Your task to perform on an android device: delete browsing data in the chrome app Image 0: 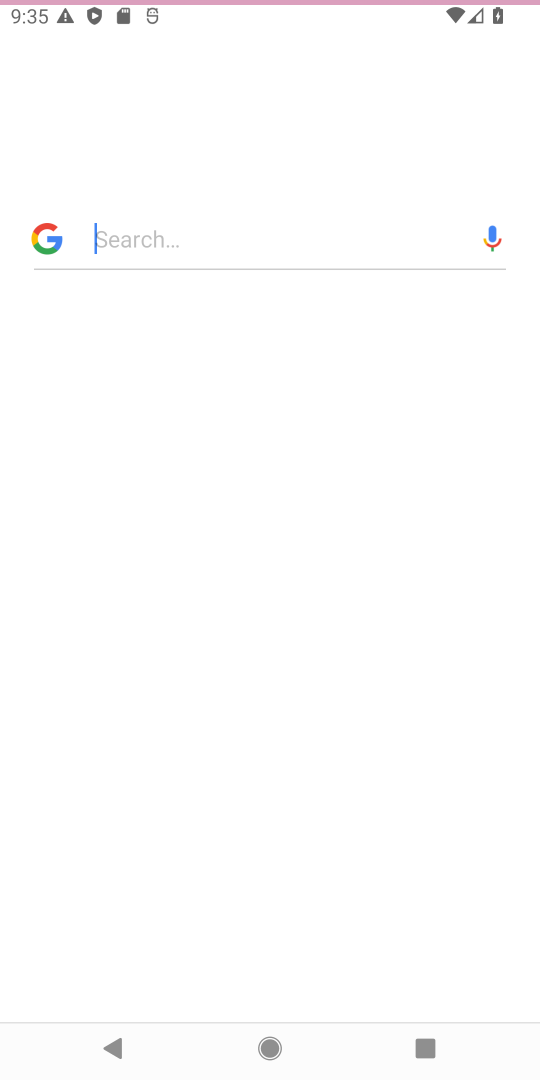
Step 0: press home button
Your task to perform on an android device: delete browsing data in the chrome app Image 1: 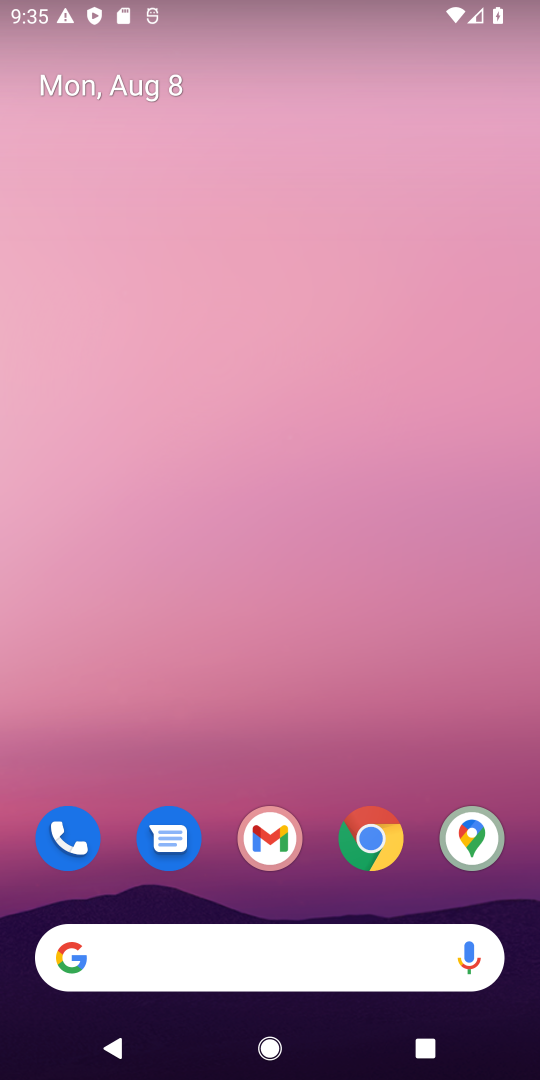
Step 1: drag from (322, 890) to (319, 215)
Your task to perform on an android device: delete browsing data in the chrome app Image 2: 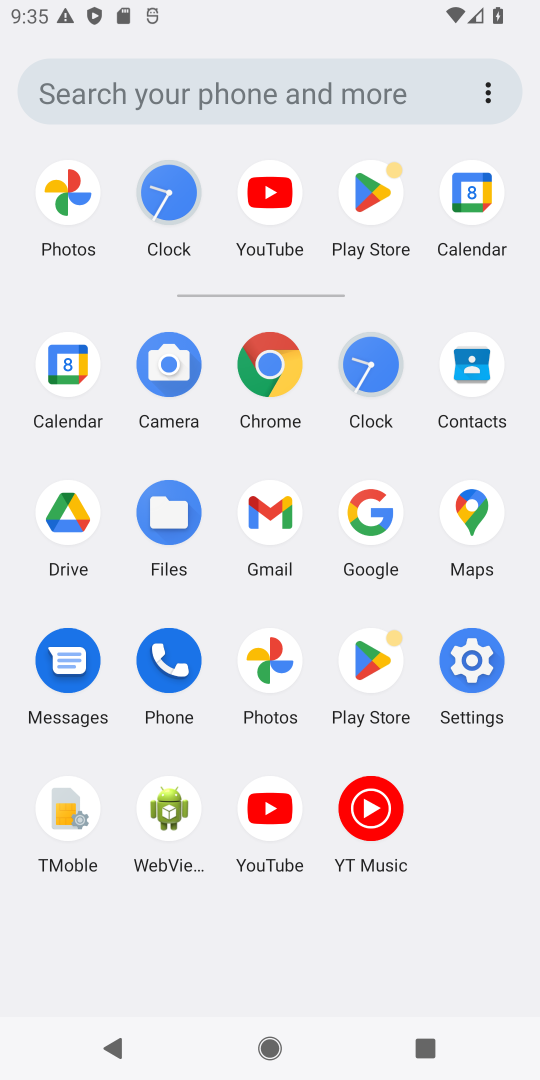
Step 2: click (272, 371)
Your task to perform on an android device: delete browsing data in the chrome app Image 3: 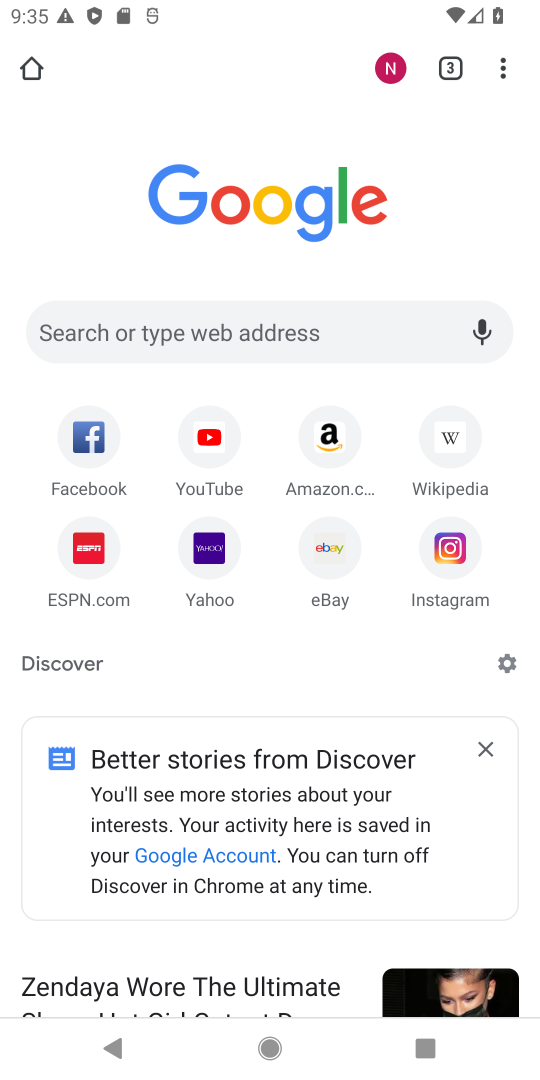
Step 3: drag from (509, 69) to (313, 704)
Your task to perform on an android device: delete browsing data in the chrome app Image 4: 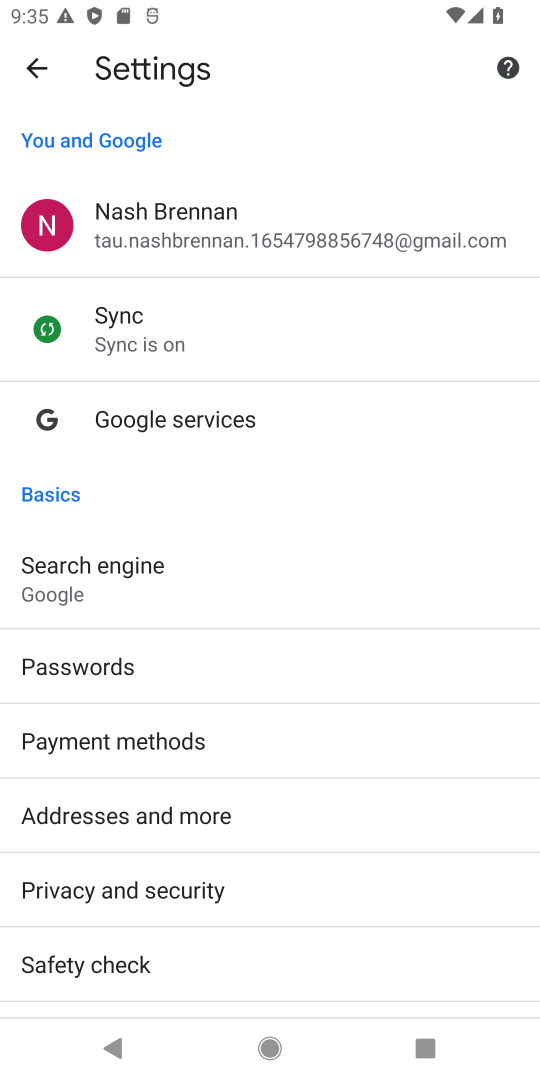
Step 4: drag from (333, 922) to (353, 375)
Your task to perform on an android device: delete browsing data in the chrome app Image 5: 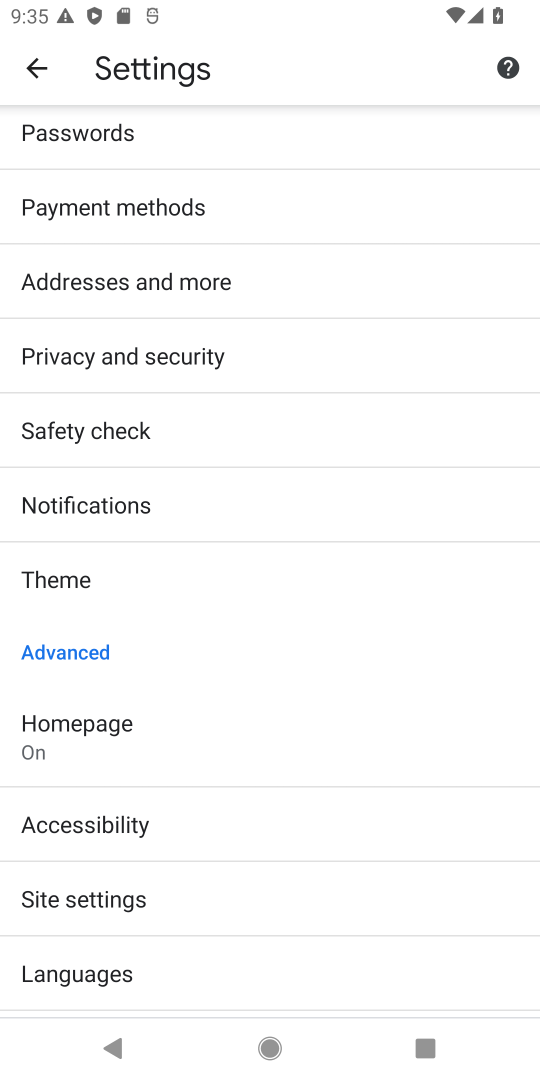
Step 5: drag from (363, 259) to (367, 422)
Your task to perform on an android device: delete browsing data in the chrome app Image 6: 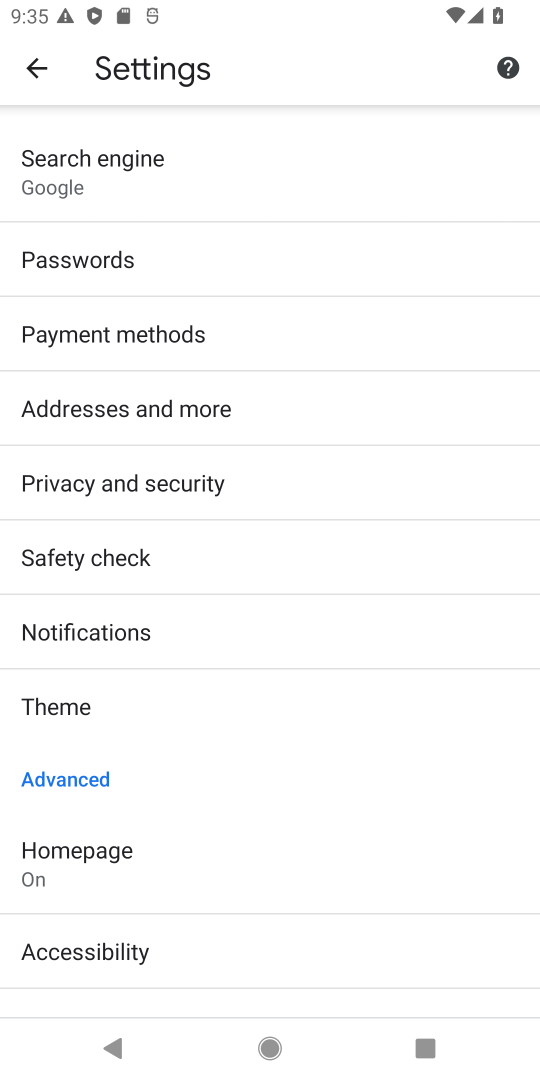
Step 6: click (141, 497)
Your task to perform on an android device: delete browsing data in the chrome app Image 7: 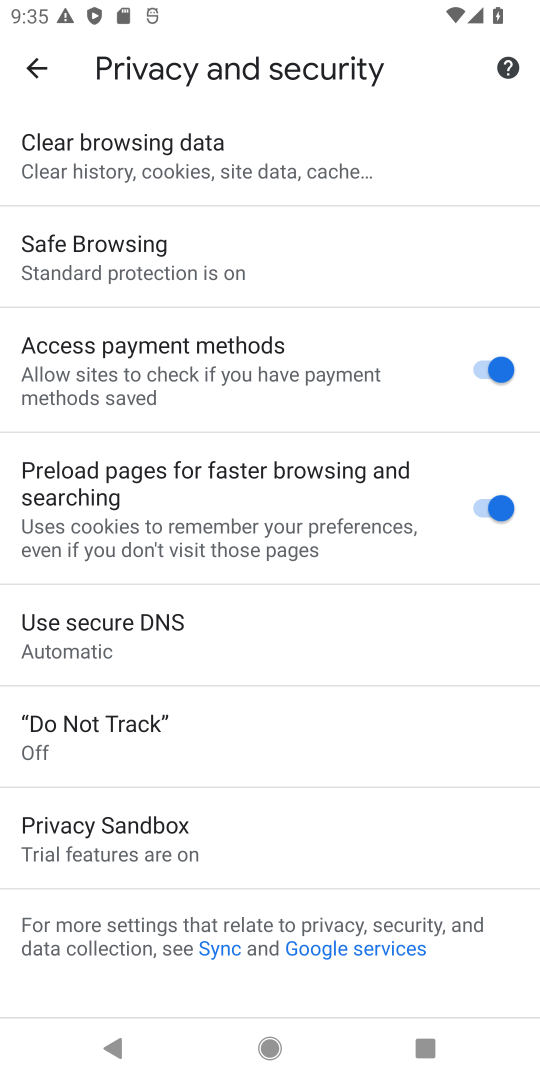
Step 7: drag from (416, 832) to (486, 67)
Your task to perform on an android device: delete browsing data in the chrome app Image 8: 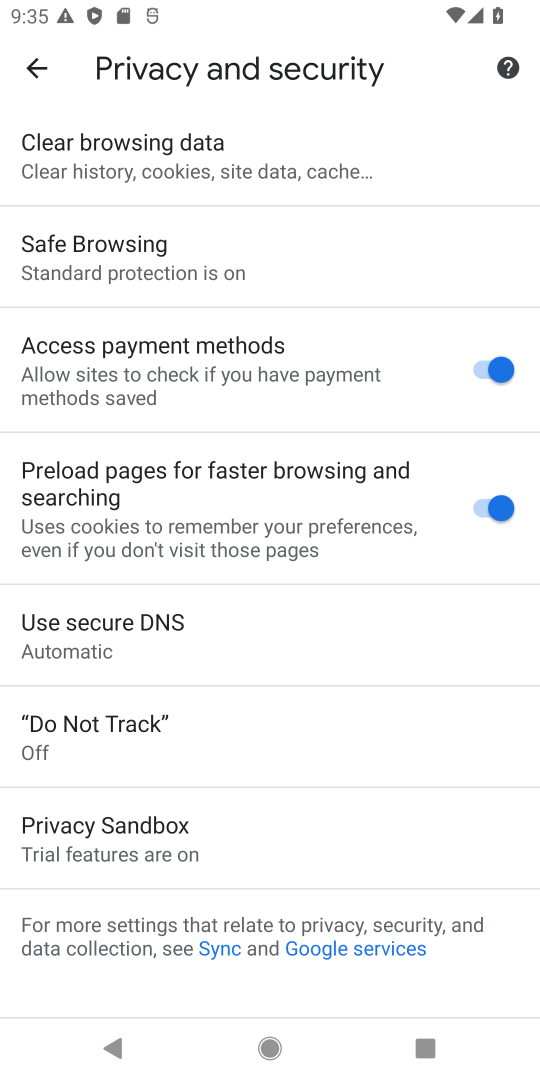
Step 8: click (99, 156)
Your task to perform on an android device: delete browsing data in the chrome app Image 9: 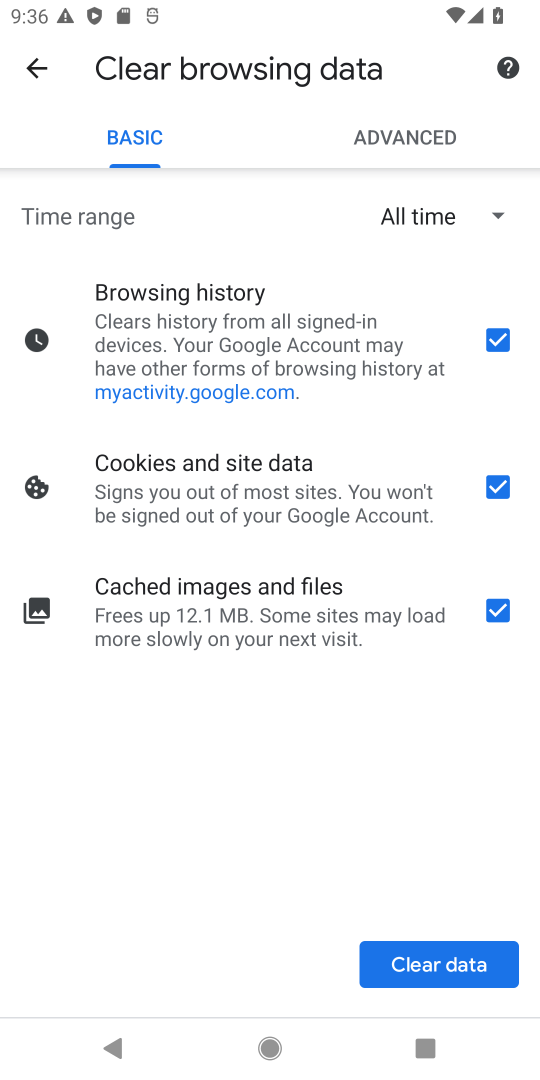
Step 9: click (428, 968)
Your task to perform on an android device: delete browsing data in the chrome app Image 10: 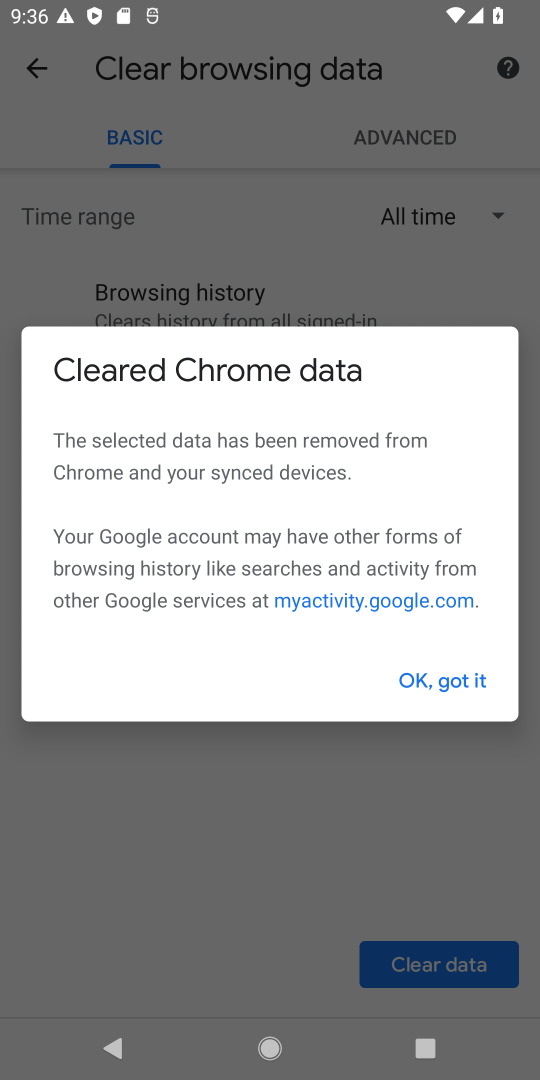
Step 10: click (424, 693)
Your task to perform on an android device: delete browsing data in the chrome app Image 11: 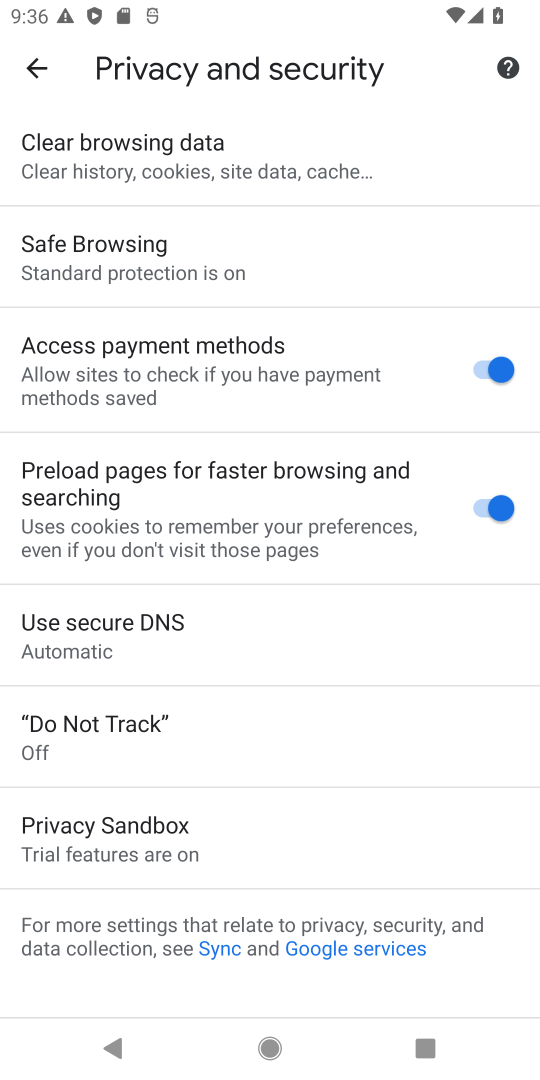
Step 11: task complete